Your task to perform on an android device: change notifications settings Image 0: 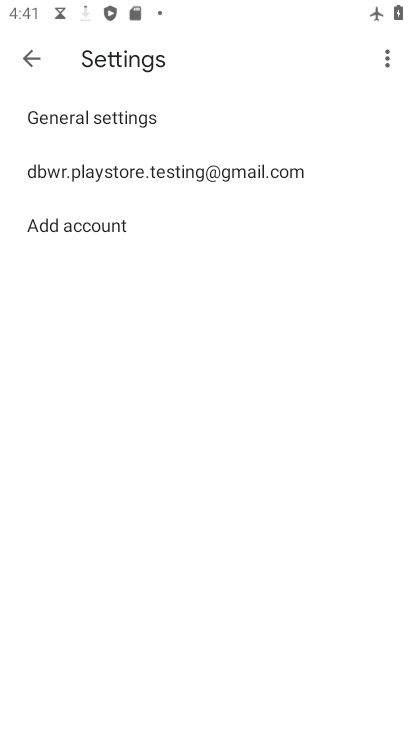
Step 0: press home button
Your task to perform on an android device: change notifications settings Image 1: 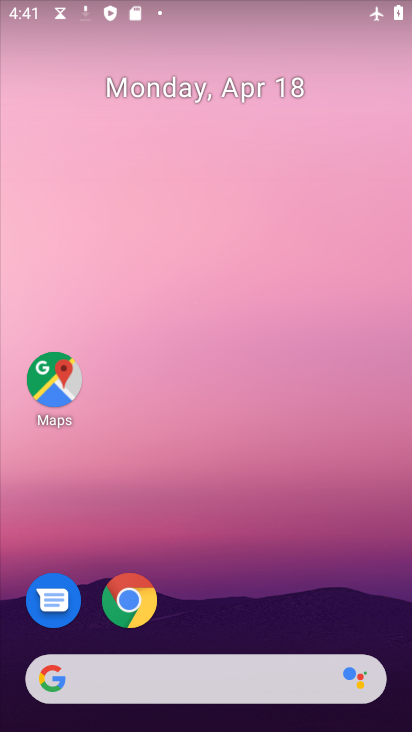
Step 1: drag from (198, 547) to (206, 11)
Your task to perform on an android device: change notifications settings Image 2: 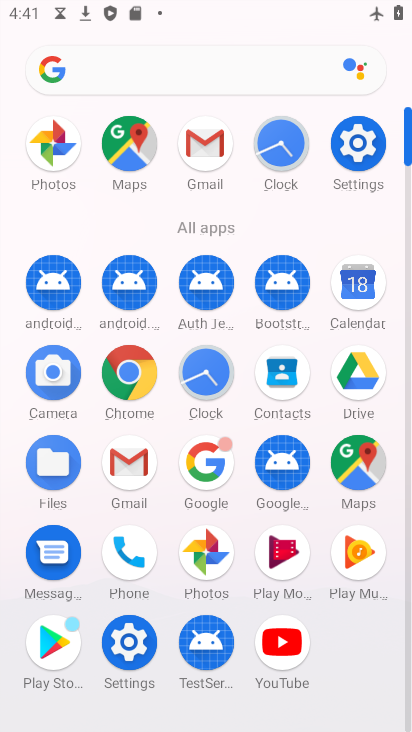
Step 2: click (357, 158)
Your task to perform on an android device: change notifications settings Image 3: 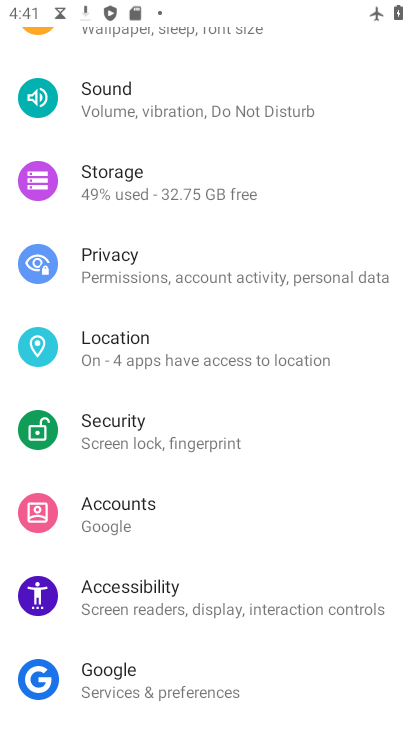
Step 3: drag from (174, 129) to (156, 708)
Your task to perform on an android device: change notifications settings Image 4: 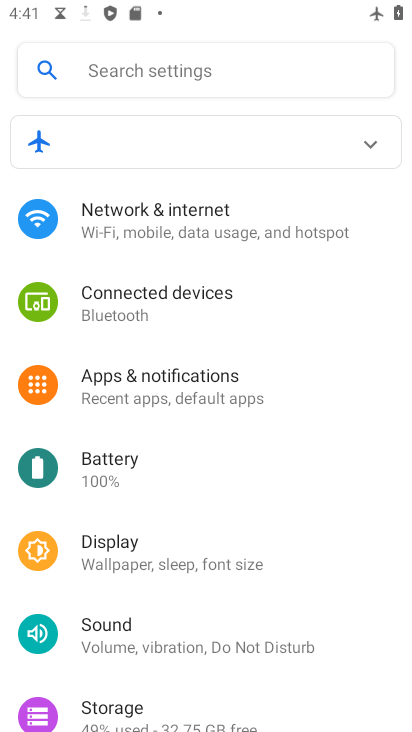
Step 4: click (193, 385)
Your task to perform on an android device: change notifications settings Image 5: 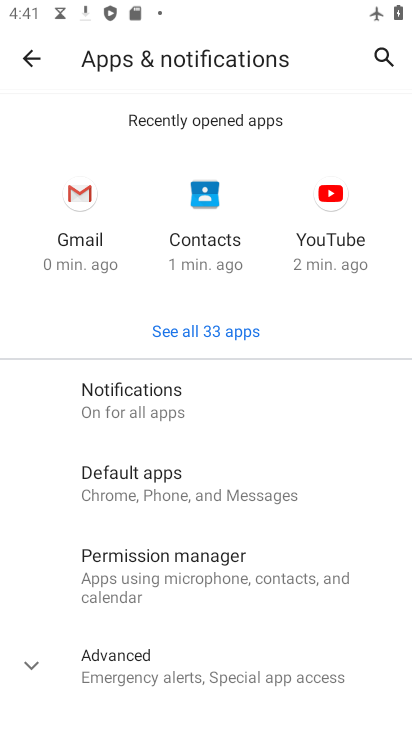
Step 5: click (136, 411)
Your task to perform on an android device: change notifications settings Image 6: 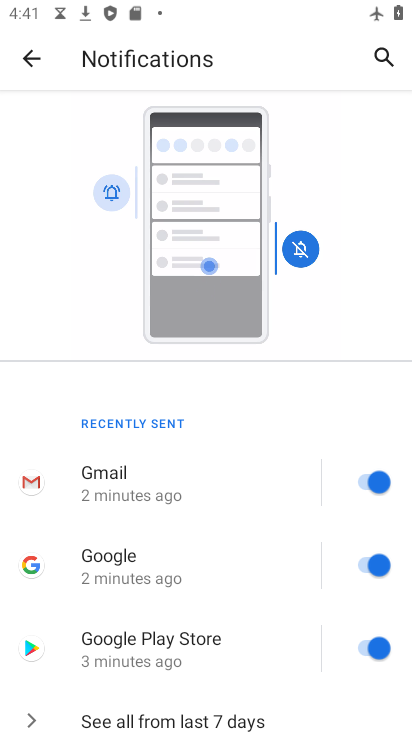
Step 6: drag from (234, 499) to (310, 15)
Your task to perform on an android device: change notifications settings Image 7: 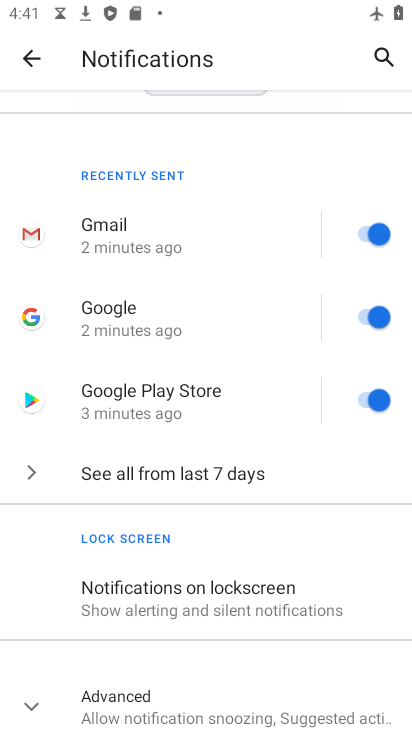
Step 7: click (364, 231)
Your task to perform on an android device: change notifications settings Image 8: 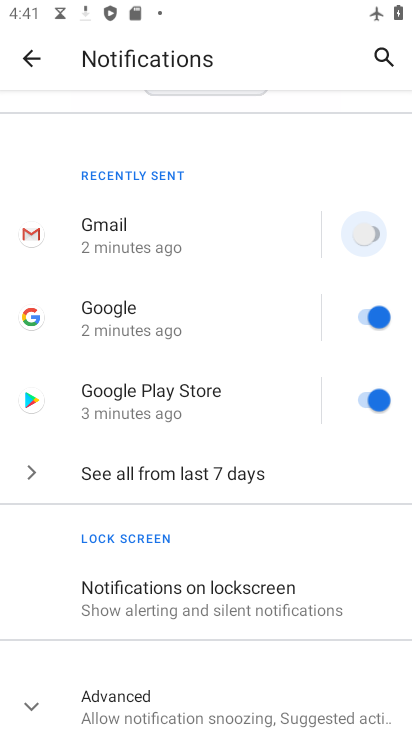
Step 8: click (361, 311)
Your task to perform on an android device: change notifications settings Image 9: 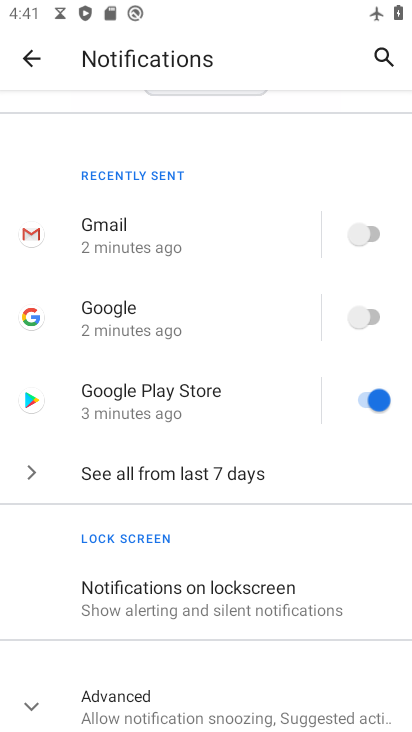
Step 9: click (366, 402)
Your task to perform on an android device: change notifications settings Image 10: 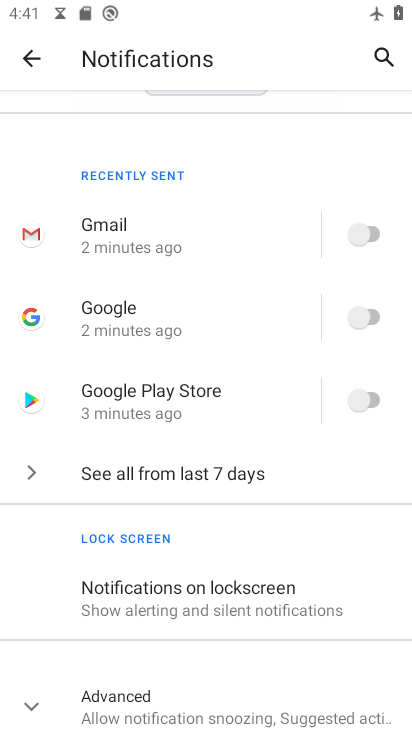
Step 10: task complete